Your task to perform on an android device: Open Google Chrome and open the bookmarks view Image 0: 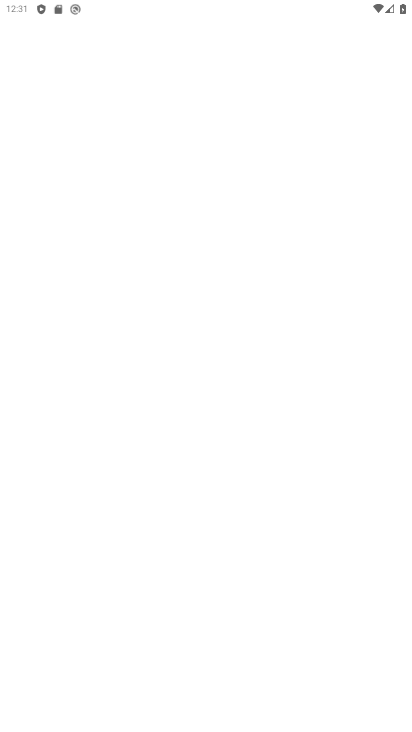
Step 0: click (258, 649)
Your task to perform on an android device: Open Google Chrome and open the bookmarks view Image 1: 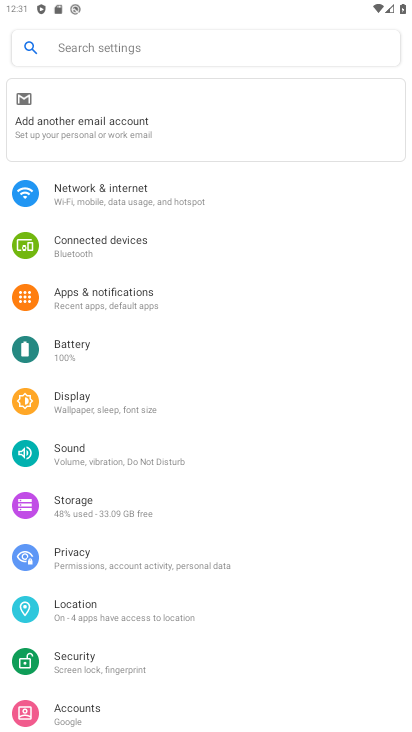
Step 1: press home button
Your task to perform on an android device: Open Google Chrome and open the bookmarks view Image 2: 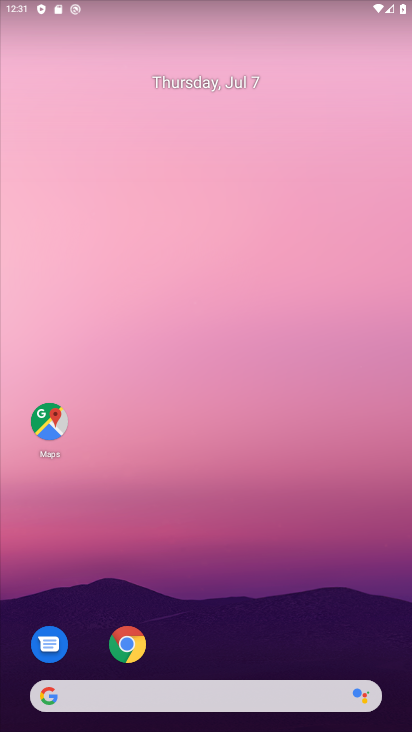
Step 2: drag from (260, 623) to (171, 186)
Your task to perform on an android device: Open Google Chrome and open the bookmarks view Image 3: 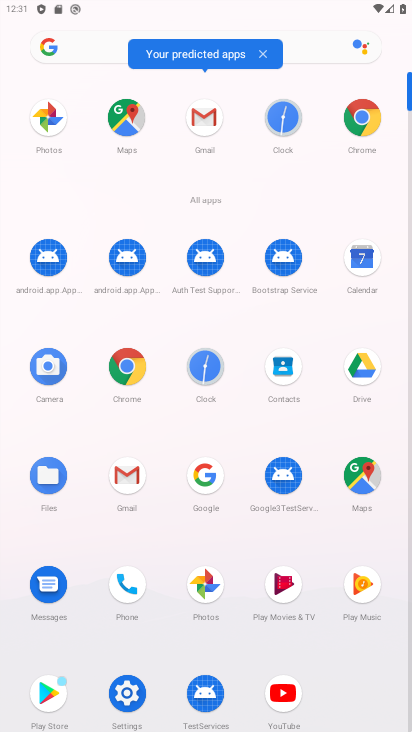
Step 3: click (373, 117)
Your task to perform on an android device: Open Google Chrome and open the bookmarks view Image 4: 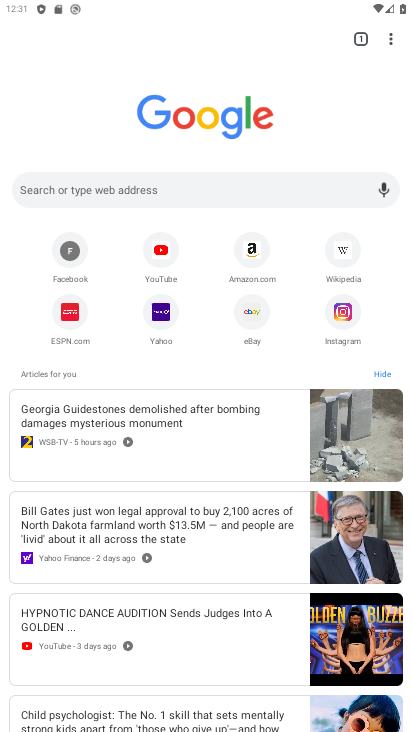
Step 4: click (394, 52)
Your task to perform on an android device: Open Google Chrome and open the bookmarks view Image 5: 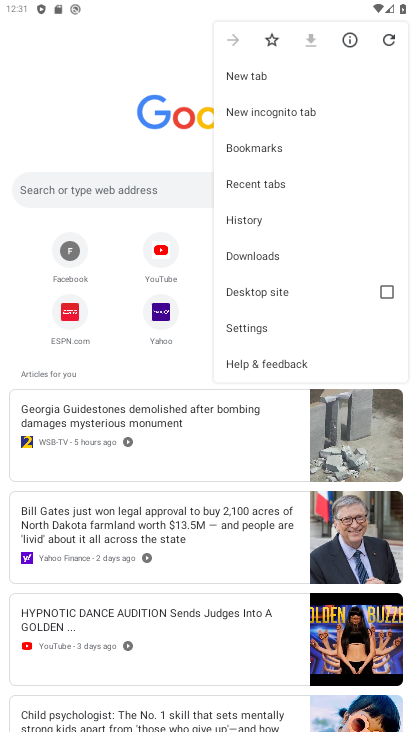
Step 5: click (331, 151)
Your task to perform on an android device: Open Google Chrome and open the bookmarks view Image 6: 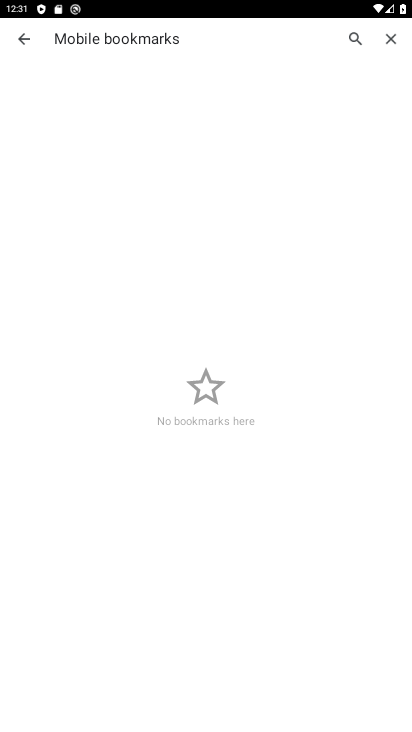
Step 6: task complete